Your task to perform on an android device: turn on javascript in the chrome app Image 0: 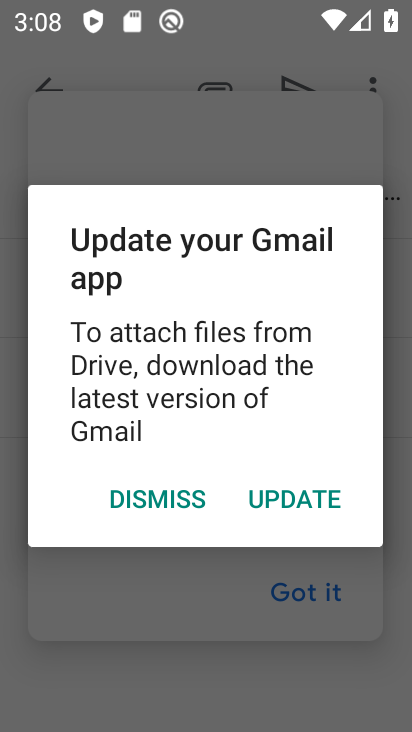
Step 0: press back button
Your task to perform on an android device: turn on javascript in the chrome app Image 1: 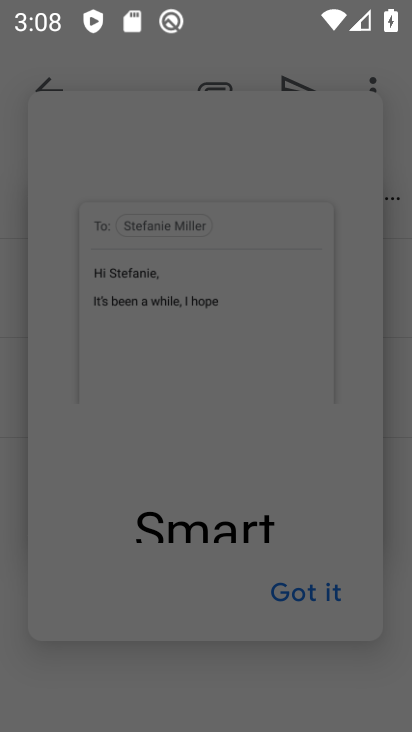
Step 1: press home button
Your task to perform on an android device: turn on javascript in the chrome app Image 2: 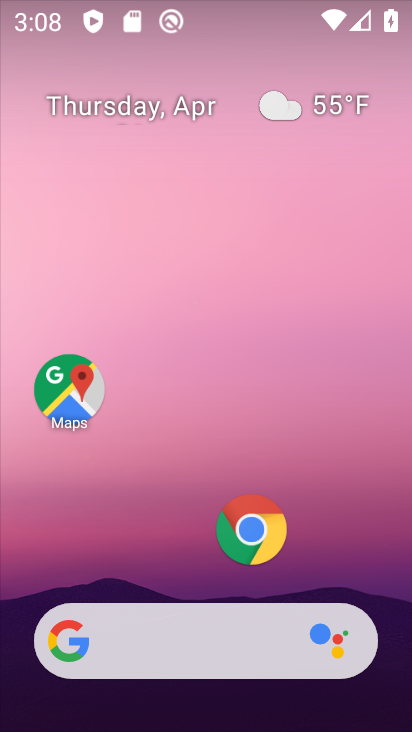
Step 2: drag from (241, 587) to (226, 142)
Your task to perform on an android device: turn on javascript in the chrome app Image 3: 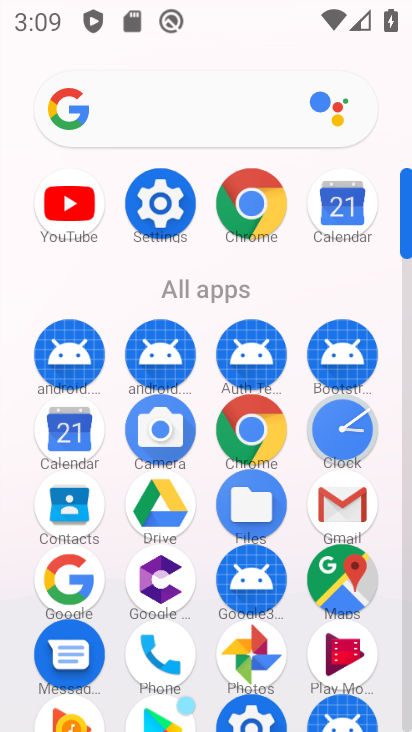
Step 3: click (246, 198)
Your task to perform on an android device: turn on javascript in the chrome app Image 4: 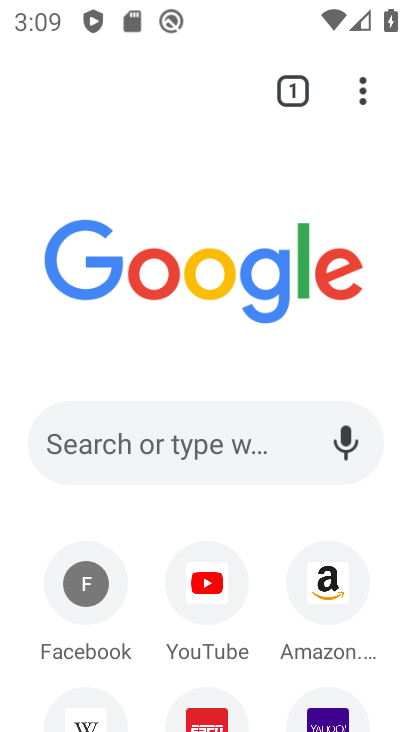
Step 4: click (364, 93)
Your task to perform on an android device: turn on javascript in the chrome app Image 5: 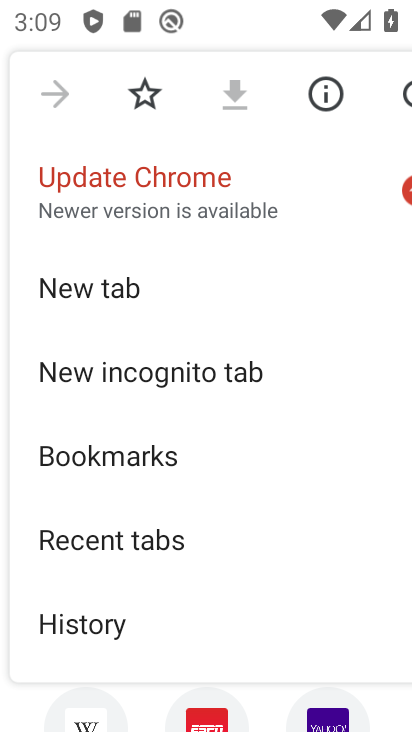
Step 5: drag from (172, 590) to (200, 320)
Your task to perform on an android device: turn on javascript in the chrome app Image 6: 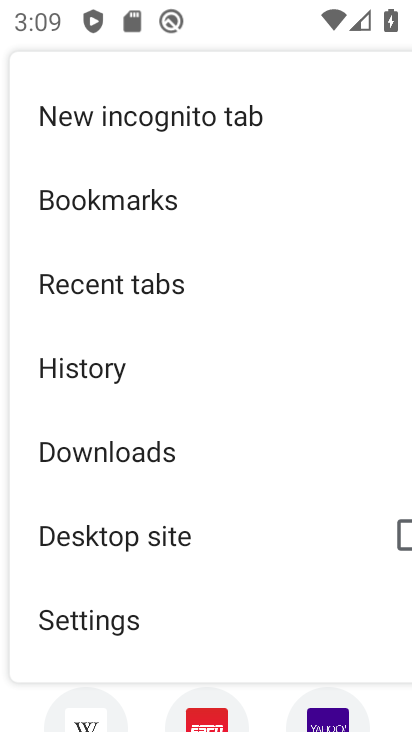
Step 6: click (106, 620)
Your task to perform on an android device: turn on javascript in the chrome app Image 7: 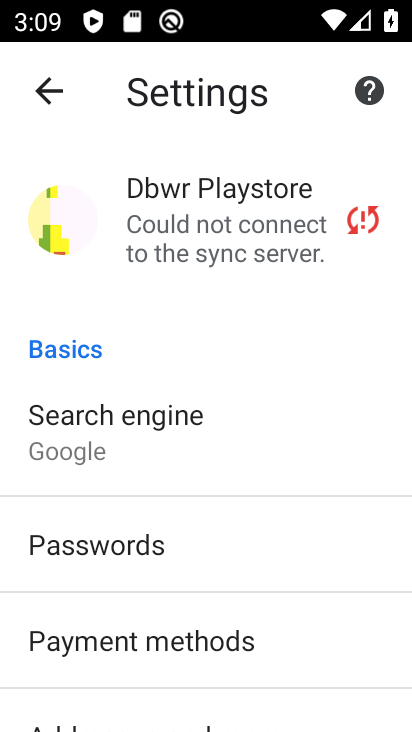
Step 7: drag from (141, 679) to (249, 324)
Your task to perform on an android device: turn on javascript in the chrome app Image 8: 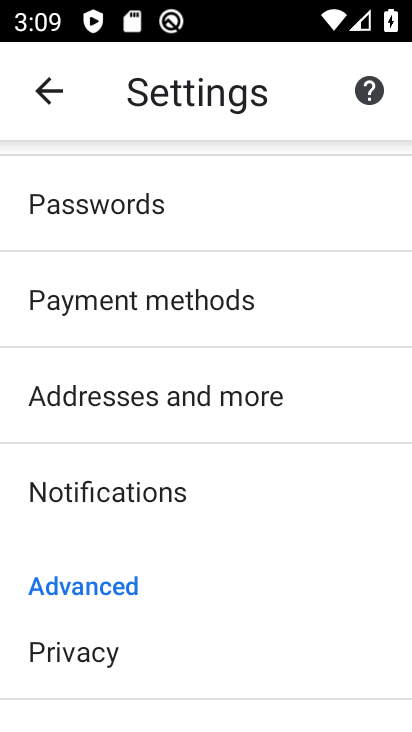
Step 8: drag from (109, 684) to (177, 411)
Your task to perform on an android device: turn on javascript in the chrome app Image 9: 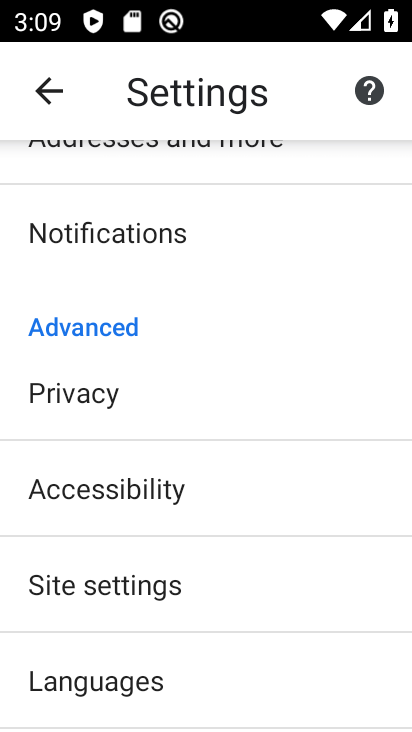
Step 9: click (99, 576)
Your task to perform on an android device: turn on javascript in the chrome app Image 10: 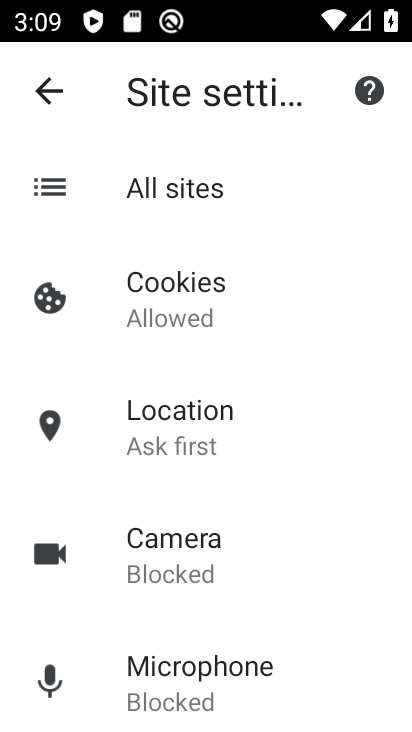
Step 10: drag from (219, 671) to (279, 283)
Your task to perform on an android device: turn on javascript in the chrome app Image 11: 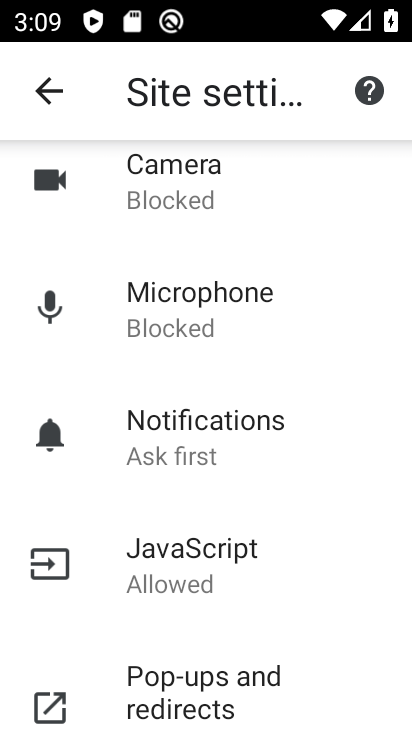
Step 11: click (188, 552)
Your task to perform on an android device: turn on javascript in the chrome app Image 12: 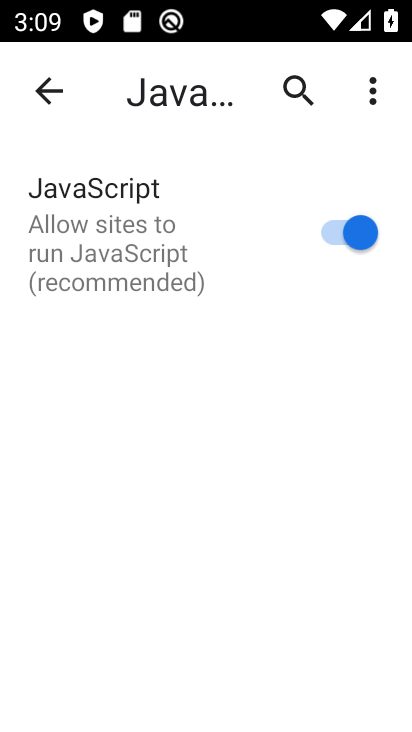
Step 12: task complete